Your task to perform on an android device: Open Google Chrome Image 0: 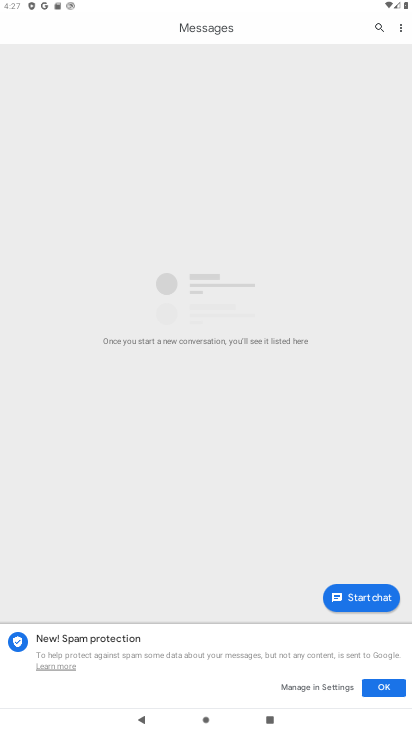
Step 0: press home button
Your task to perform on an android device: Open Google Chrome Image 1: 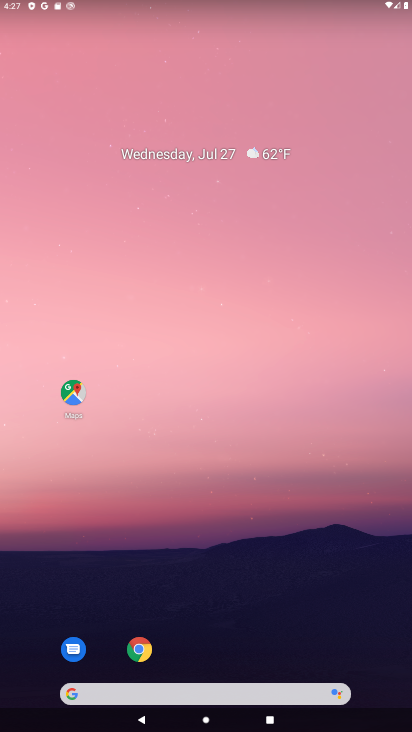
Step 1: click (135, 650)
Your task to perform on an android device: Open Google Chrome Image 2: 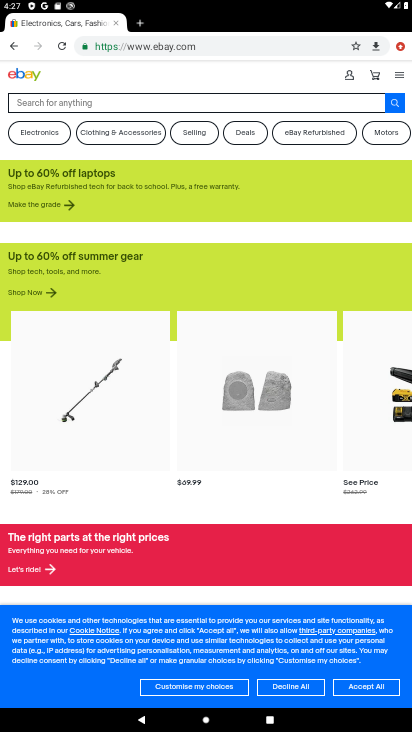
Step 2: task complete